Your task to perform on an android device: all mails in gmail Image 0: 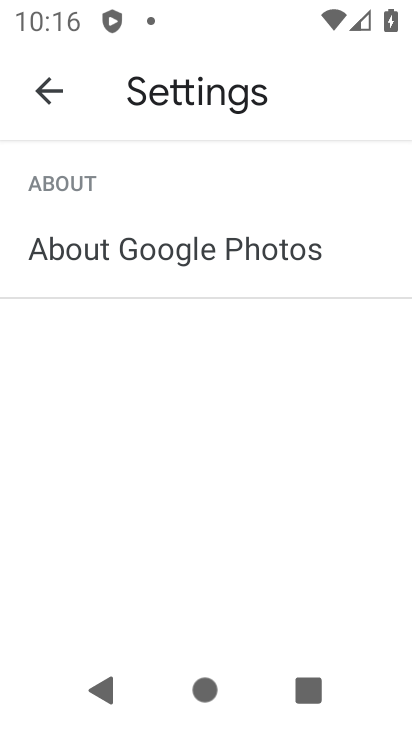
Step 0: press home button
Your task to perform on an android device: all mails in gmail Image 1: 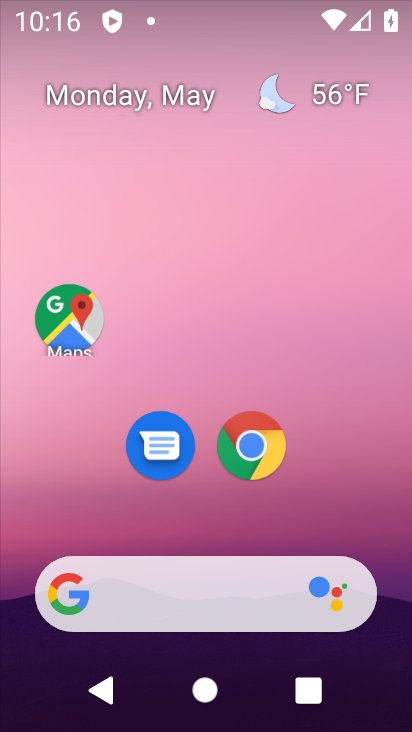
Step 1: drag from (235, 537) to (218, 270)
Your task to perform on an android device: all mails in gmail Image 2: 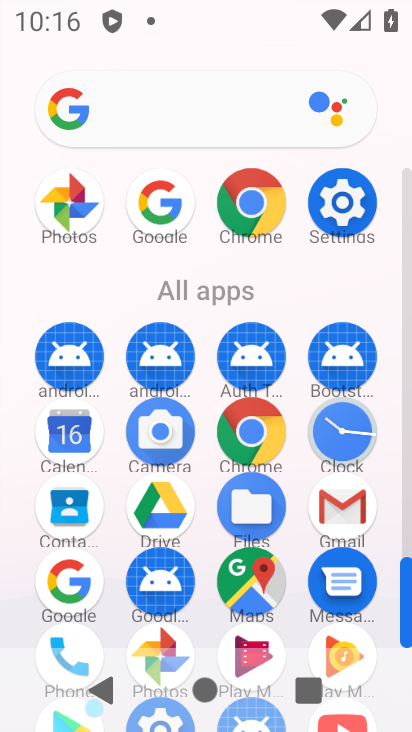
Step 2: click (341, 510)
Your task to perform on an android device: all mails in gmail Image 3: 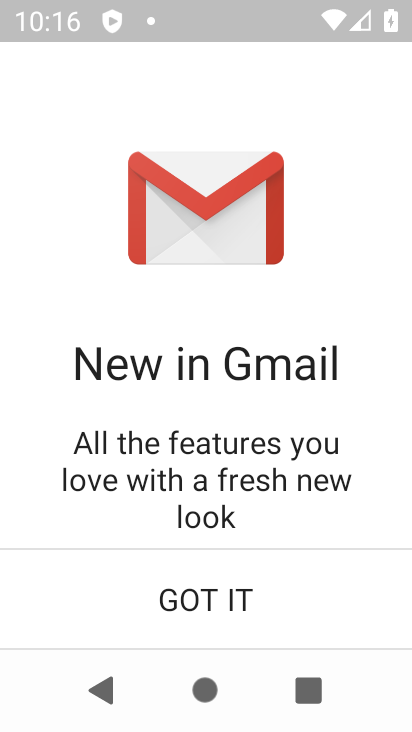
Step 3: click (198, 592)
Your task to perform on an android device: all mails in gmail Image 4: 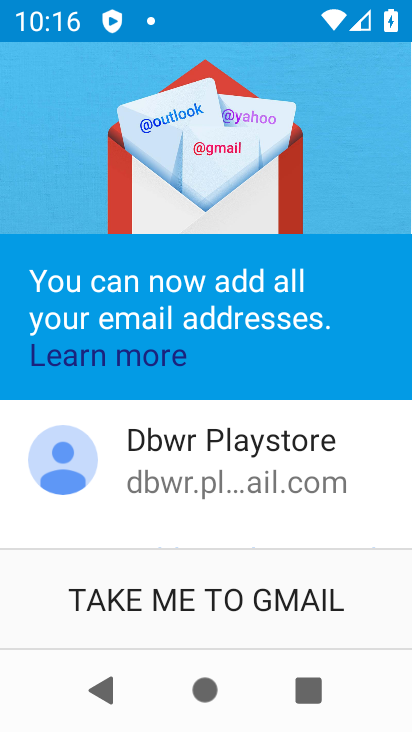
Step 4: click (229, 592)
Your task to perform on an android device: all mails in gmail Image 5: 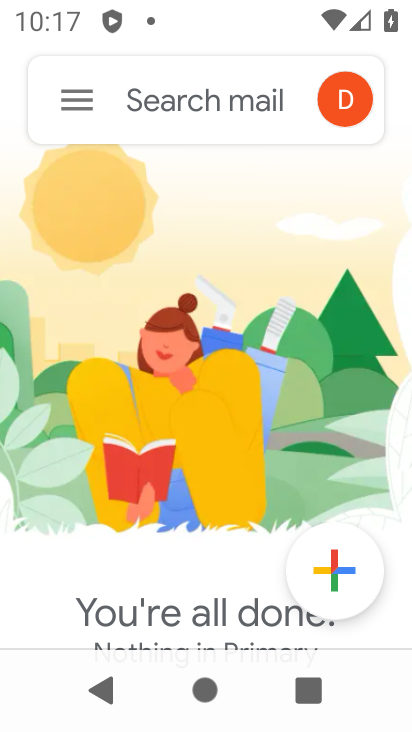
Step 5: click (73, 97)
Your task to perform on an android device: all mails in gmail Image 6: 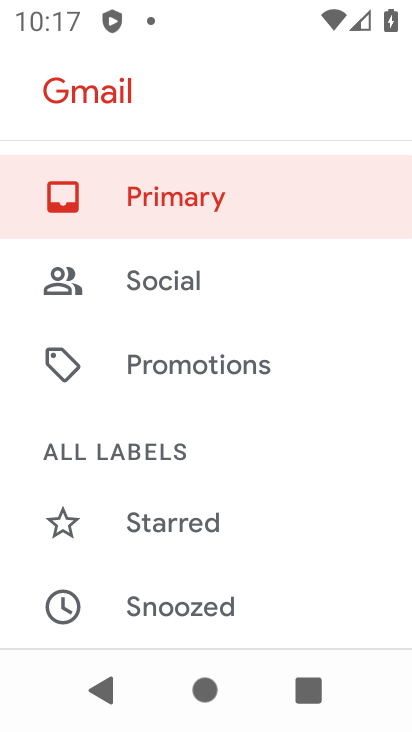
Step 6: drag from (173, 550) to (176, 209)
Your task to perform on an android device: all mails in gmail Image 7: 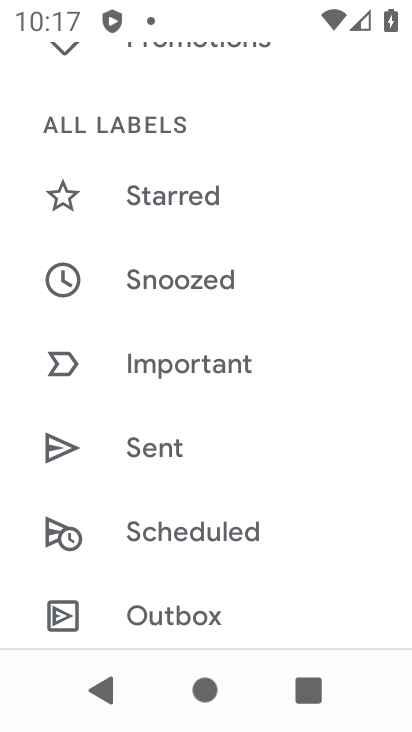
Step 7: drag from (159, 631) to (159, 315)
Your task to perform on an android device: all mails in gmail Image 8: 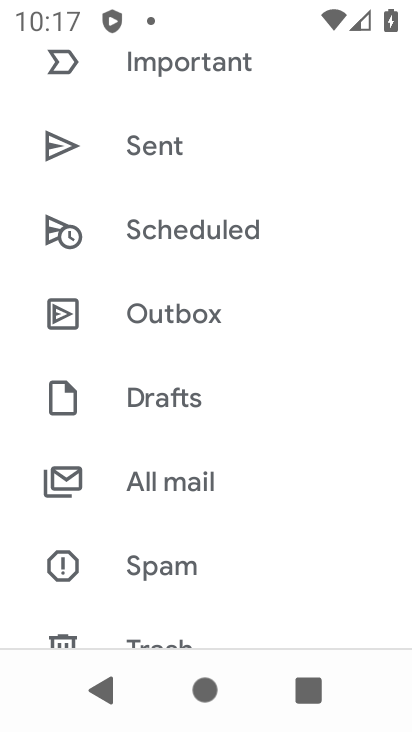
Step 8: click (143, 491)
Your task to perform on an android device: all mails in gmail Image 9: 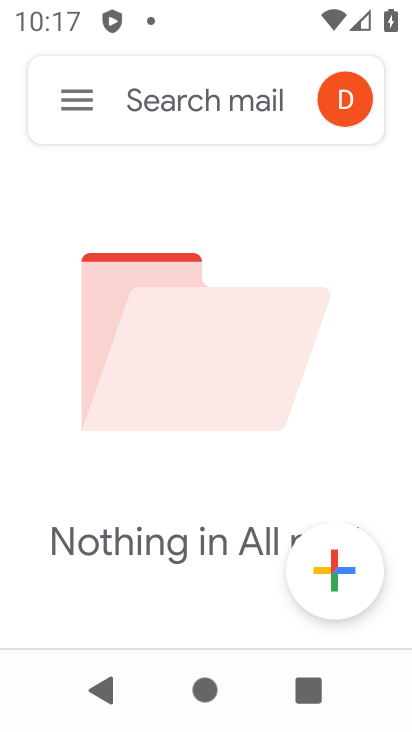
Step 9: task complete